Your task to perform on an android device: set an alarm Image 0: 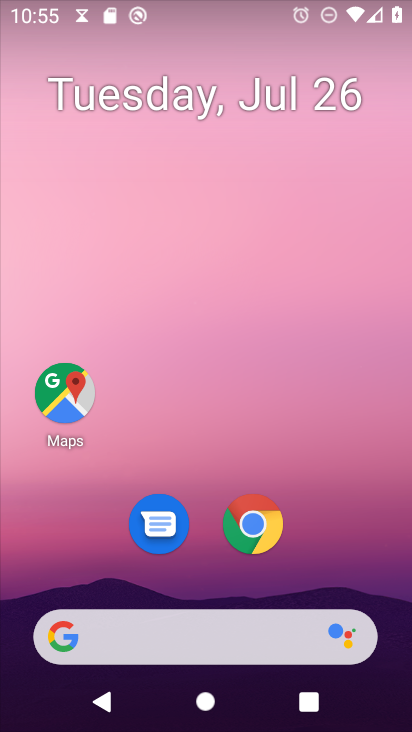
Step 0: drag from (201, 619) to (211, 98)
Your task to perform on an android device: set an alarm Image 1: 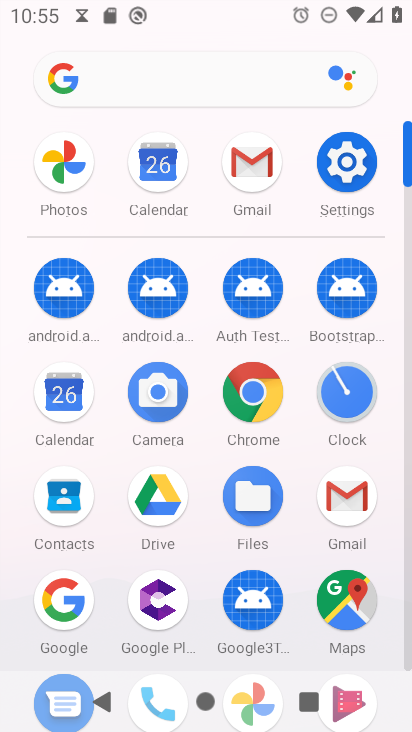
Step 1: drag from (273, 161) to (267, 75)
Your task to perform on an android device: set an alarm Image 2: 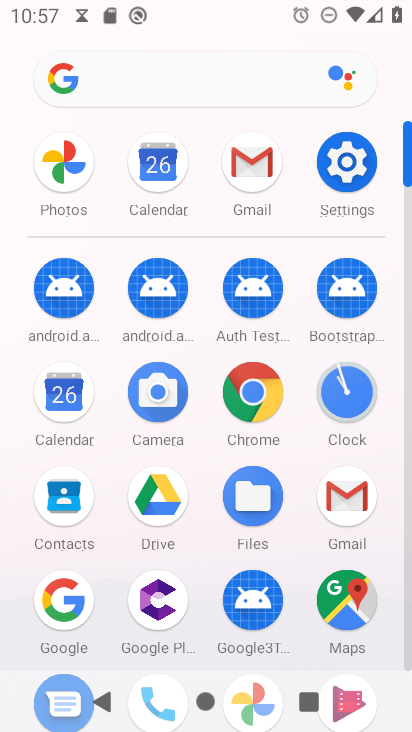
Step 2: click (349, 397)
Your task to perform on an android device: set an alarm Image 3: 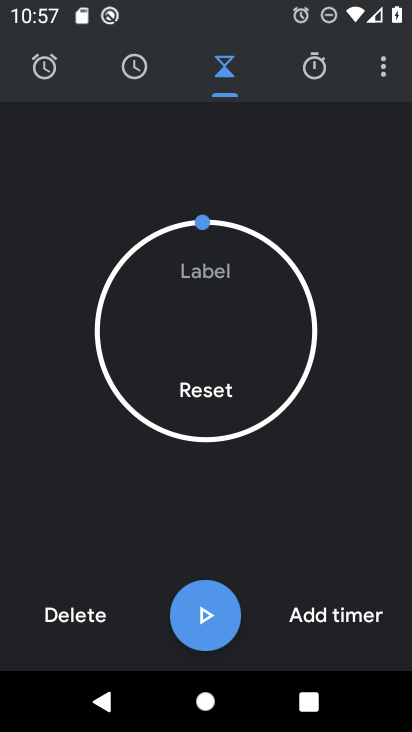
Step 3: click (49, 69)
Your task to perform on an android device: set an alarm Image 4: 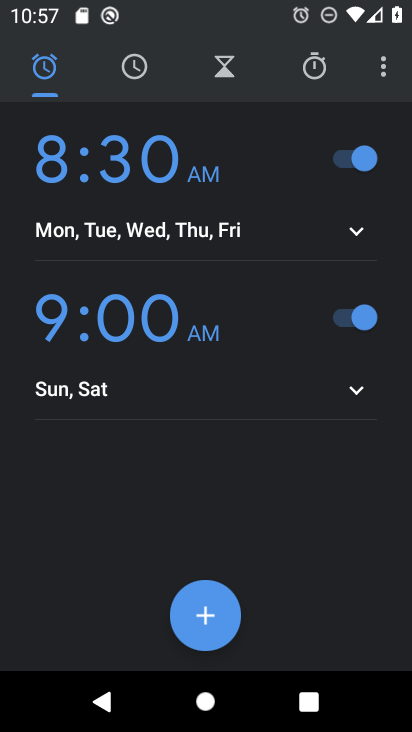
Step 4: click (202, 610)
Your task to perform on an android device: set an alarm Image 5: 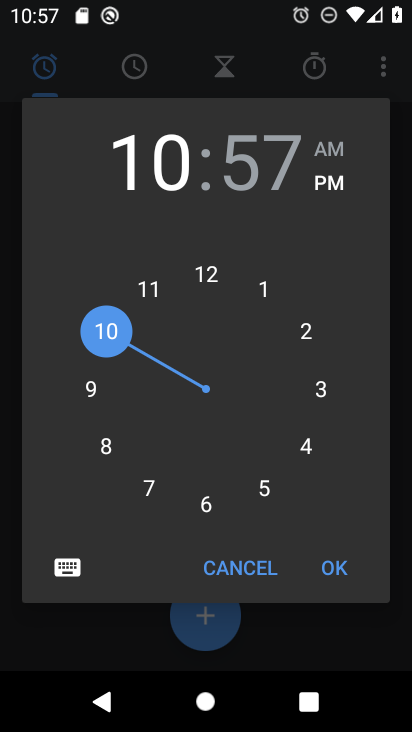
Step 5: click (213, 274)
Your task to perform on an android device: set an alarm Image 6: 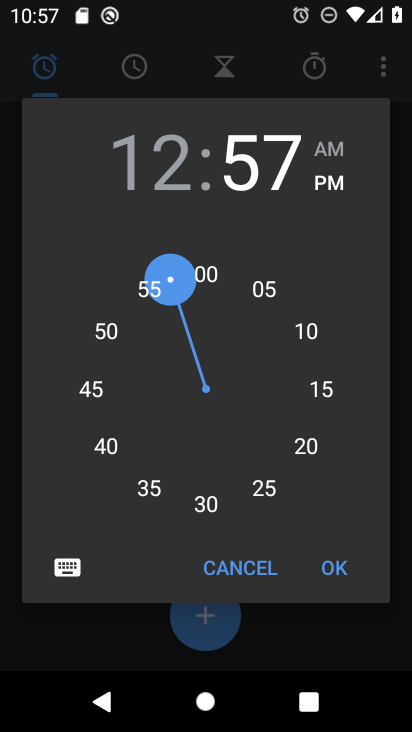
Step 6: click (336, 564)
Your task to perform on an android device: set an alarm Image 7: 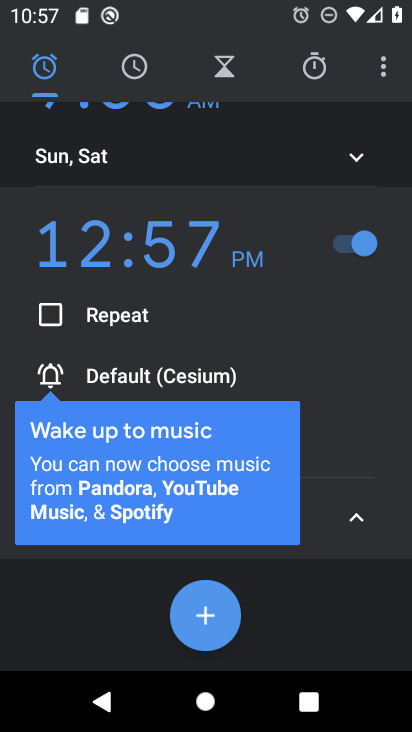
Step 7: task complete